Your task to perform on an android device: What is the news today? Image 0: 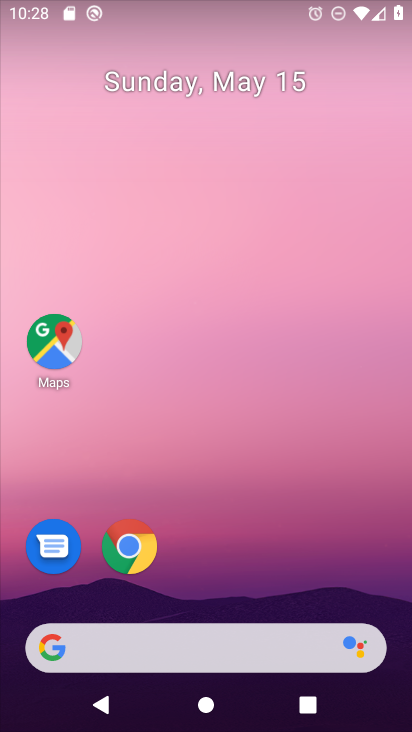
Step 0: click (128, 532)
Your task to perform on an android device: What is the news today? Image 1: 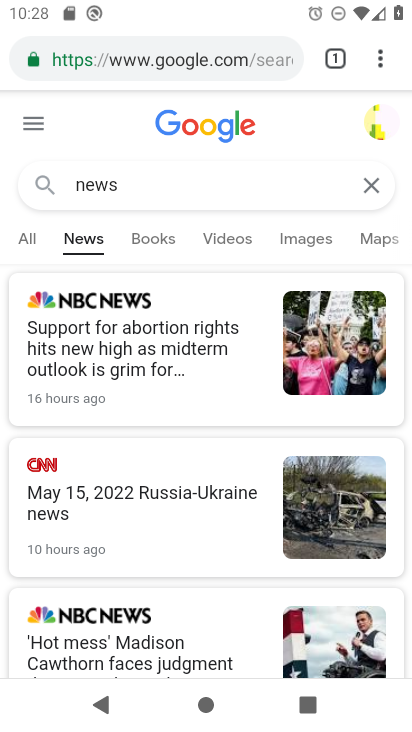
Step 1: task complete